Your task to perform on an android device: toggle location history Image 0: 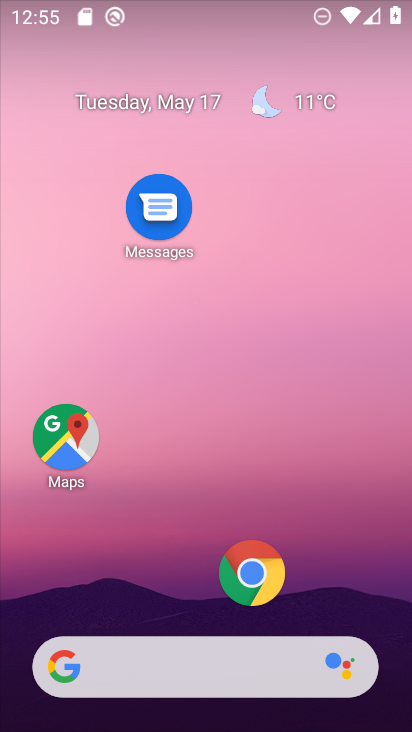
Step 0: drag from (198, 612) to (227, 150)
Your task to perform on an android device: toggle location history Image 1: 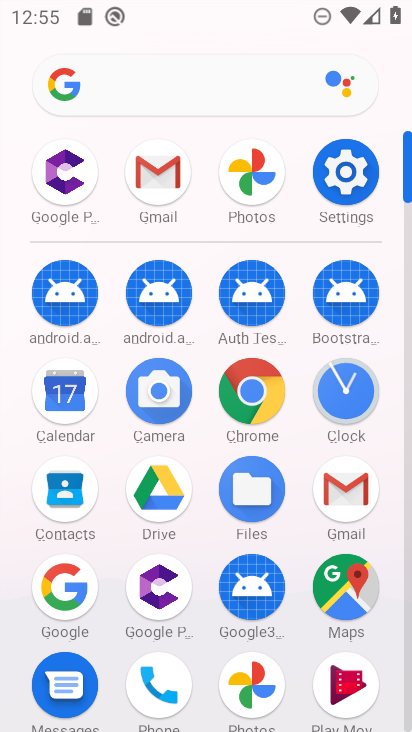
Step 1: click (337, 167)
Your task to perform on an android device: toggle location history Image 2: 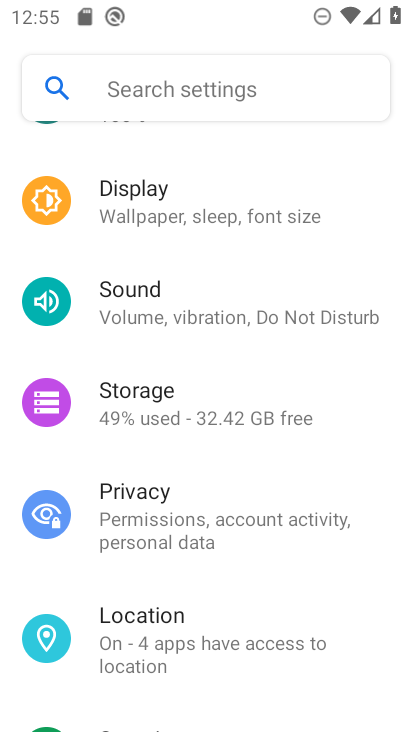
Step 2: click (198, 617)
Your task to perform on an android device: toggle location history Image 3: 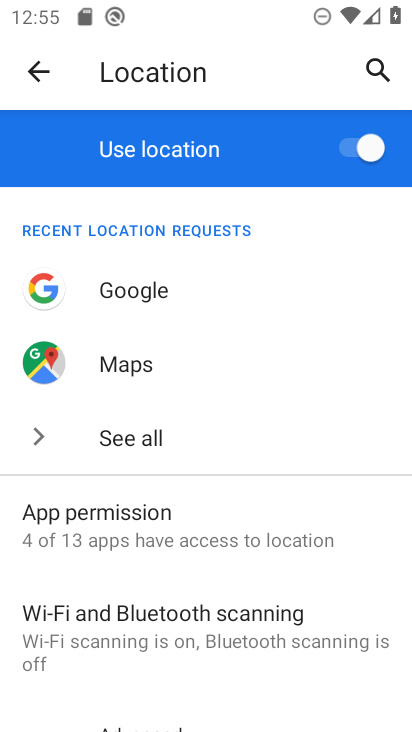
Step 3: drag from (174, 583) to (197, 220)
Your task to perform on an android device: toggle location history Image 4: 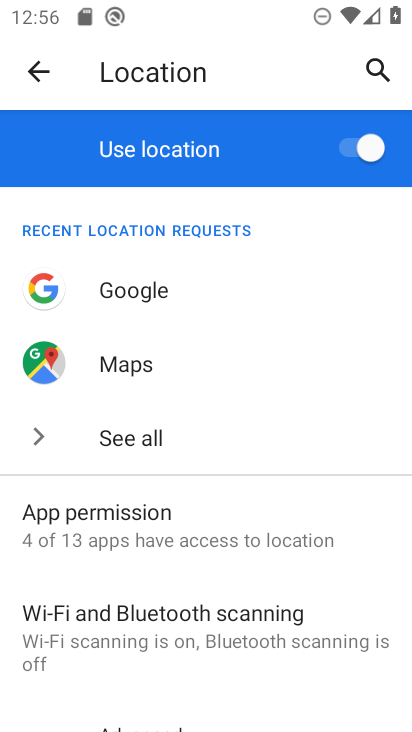
Step 4: drag from (204, 666) to (184, 262)
Your task to perform on an android device: toggle location history Image 5: 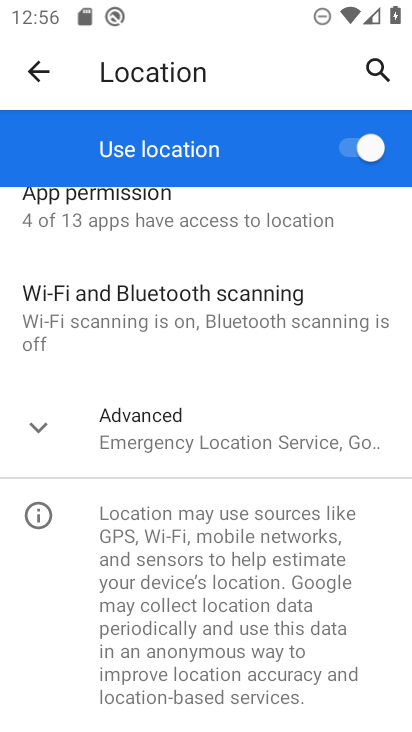
Step 5: click (40, 420)
Your task to perform on an android device: toggle location history Image 6: 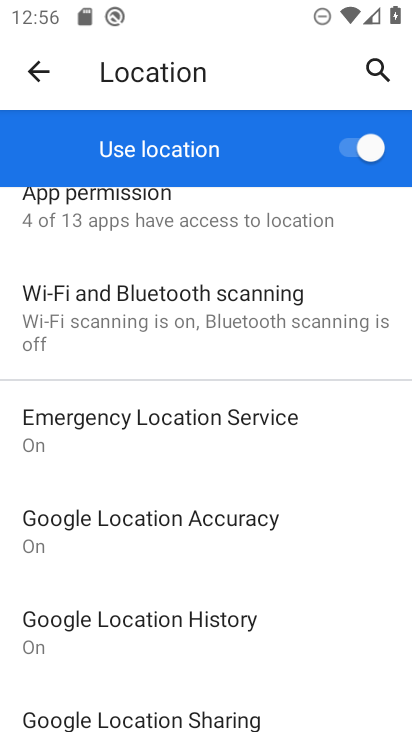
Step 6: click (116, 634)
Your task to perform on an android device: toggle location history Image 7: 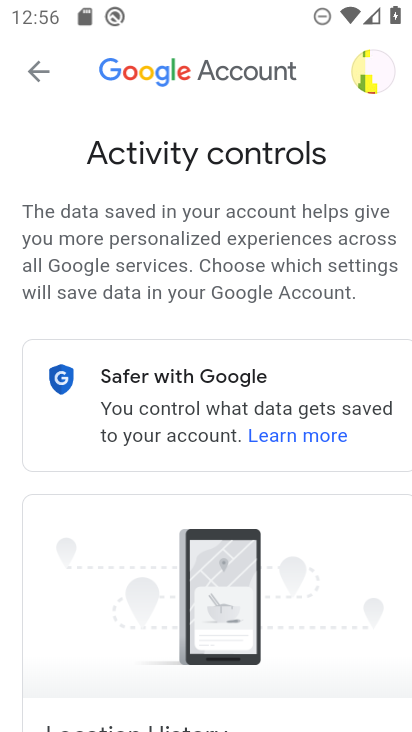
Step 7: task complete